Your task to perform on an android device: Open notification settings Image 0: 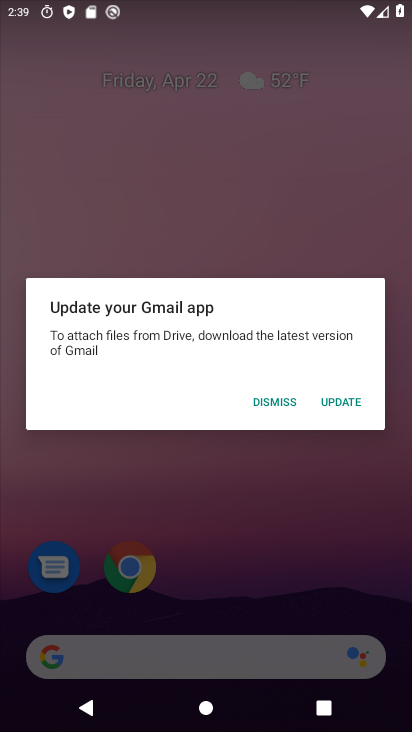
Step 0: press home button
Your task to perform on an android device: Open notification settings Image 1: 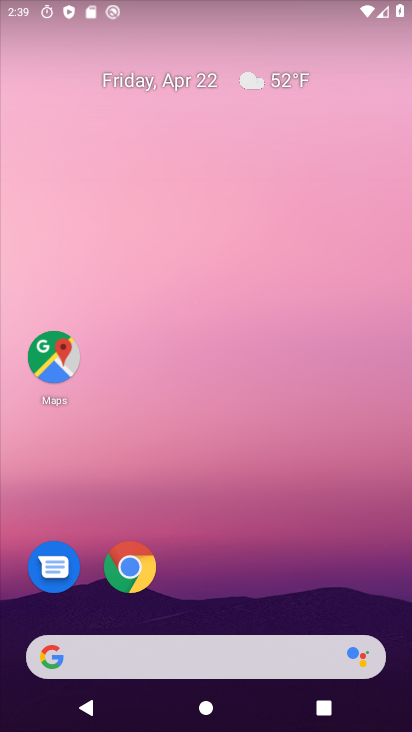
Step 1: drag from (222, 562) to (186, 32)
Your task to perform on an android device: Open notification settings Image 2: 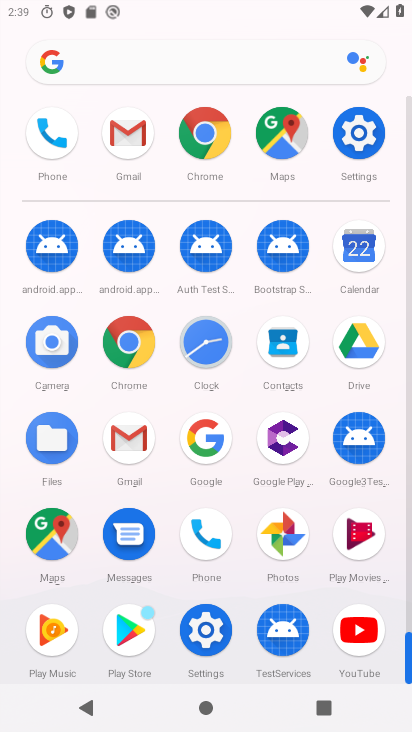
Step 2: click (366, 134)
Your task to perform on an android device: Open notification settings Image 3: 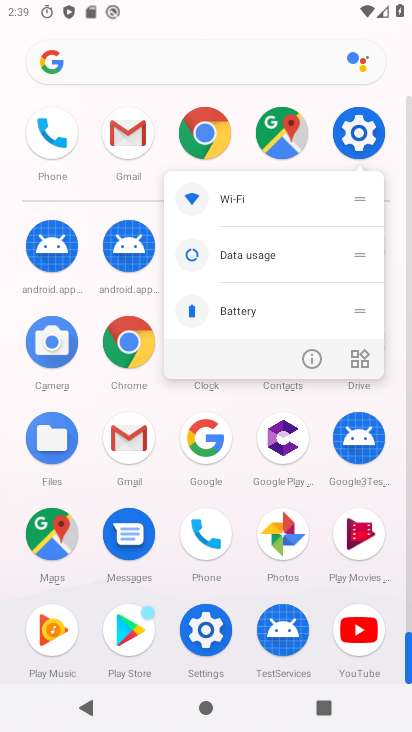
Step 3: click (353, 141)
Your task to perform on an android device: Open notification settings Image 4: 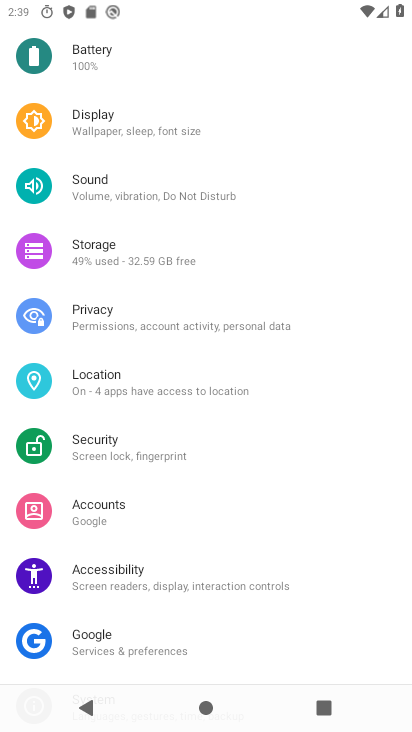
Step 4: drag from (201, 182) to (172, 616)
Your task to perform on an android device: Open notification settings Image 5: 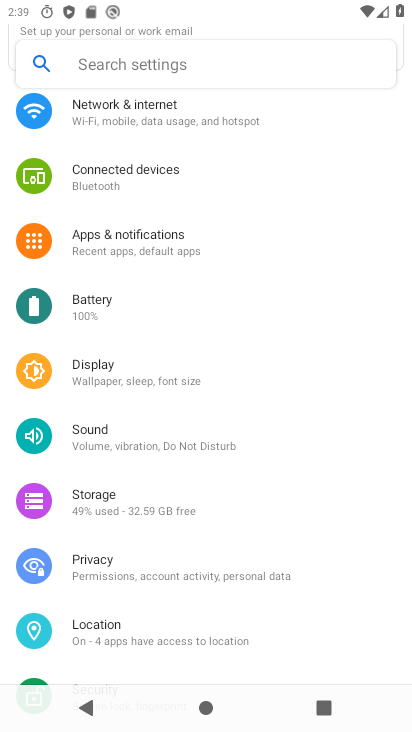
Step 5: click (186, 236)
Your task to perform on an android device: Open notification settings Image 6: 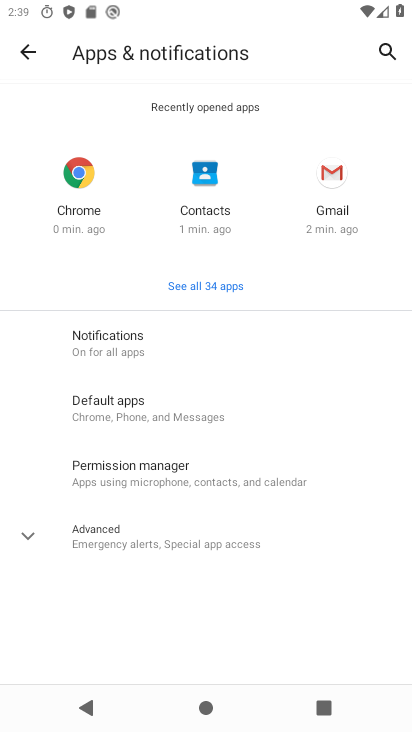
Step 6: task complete